Your task to perform on an android device: Go to Yahoo.com Image 0: 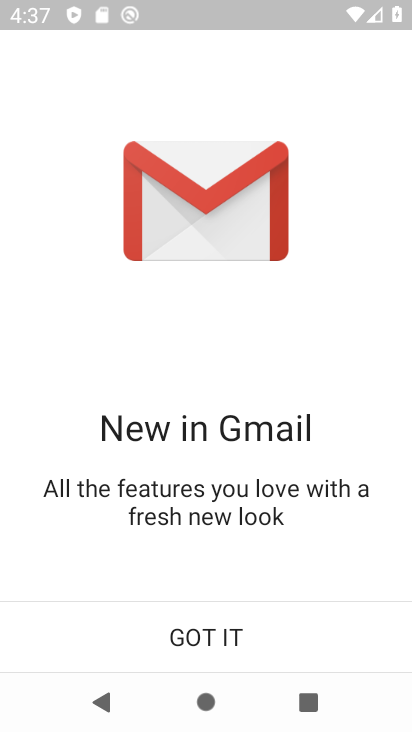
Step 0: click (214, 633)
Your task to perform on an android device: Go to Yahoo.com Image 1: 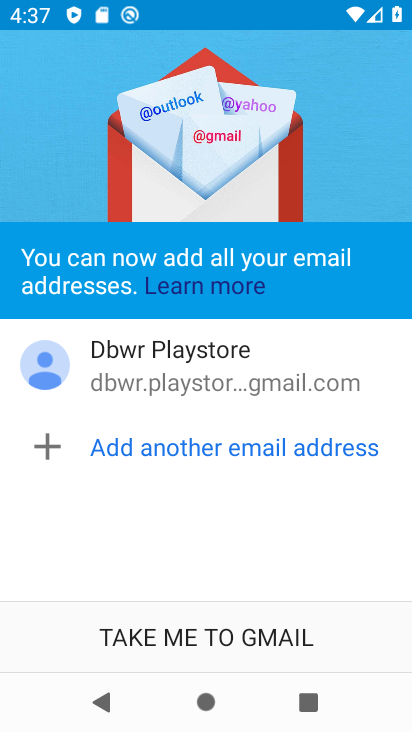
Step 1: press home button
Your task to perform on an android device: Go to Yahoo.com Image 2: 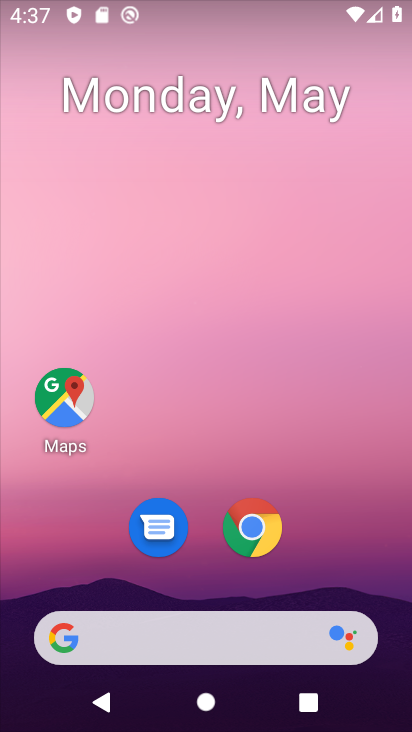
Step 2: drag from (399, 676) to (333, 201)
Your task to perform on an android device: Go to Yahoo.com Image 3: 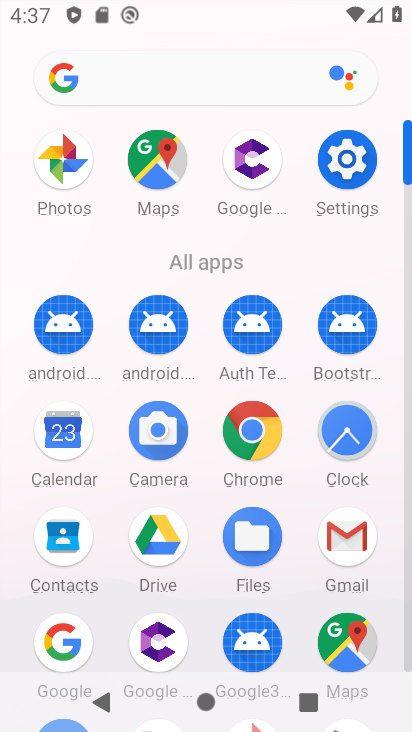
Step 3: click (258, 426)
Your task to perform on an android device: Go to Yahoo.com Image 4: 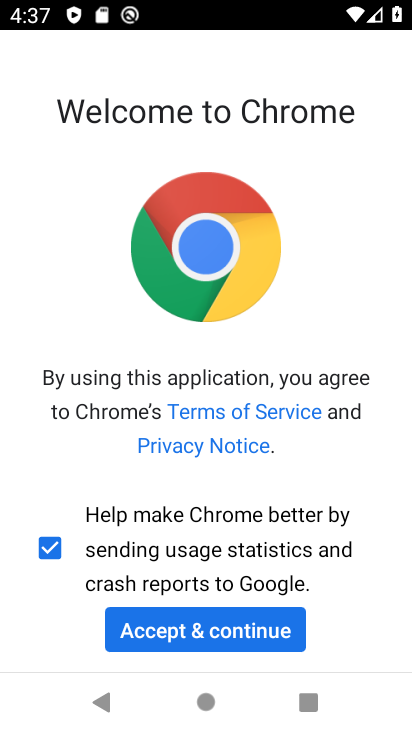
Step 4: click (251, 632)
Your task to perform on an android device: Go to Yahoo.com Image 5: 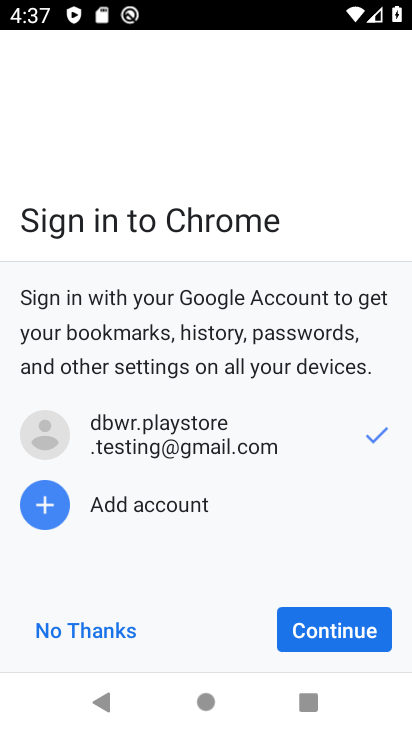
Step 5: click (326, 634)
Your task to perform on an android device: Go to Yahoo.com Image 6: 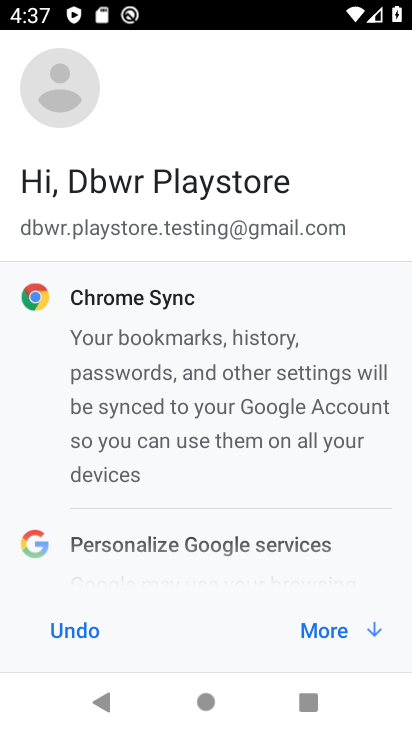
Step 6: click (327, 630)
Your task to perform on an android device: Go to Yahoo.com Image 7: 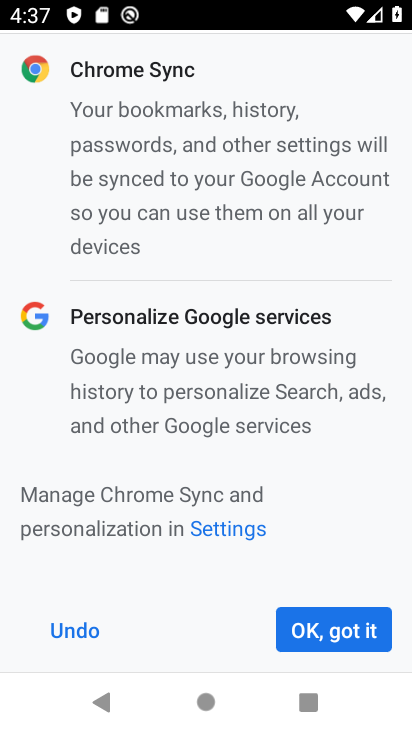
Step 7: click (327, 630)
Your task to perform on an android device: Go to Yahoo.com Image 8: 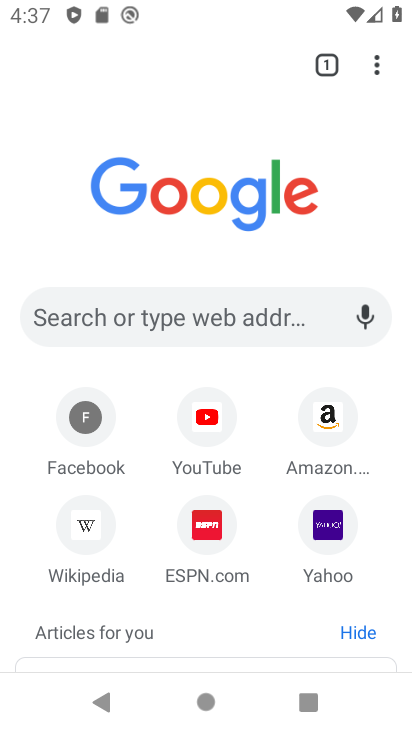
Step 8: click (345, 636)
Your task to perform on an android device: Go to Yahoo.com Image 9: 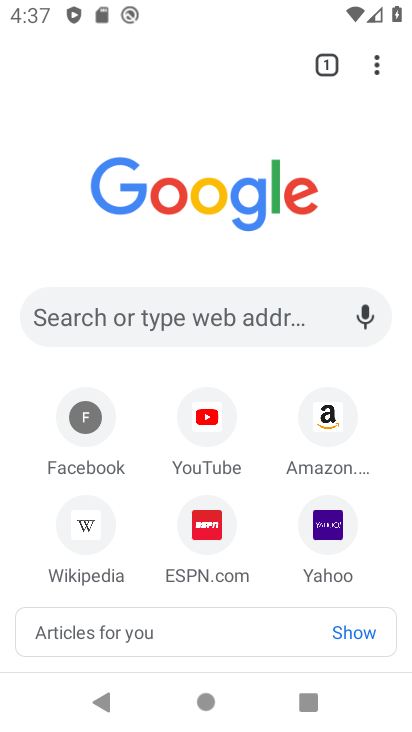
Step 9: click (249, 314)
Your task to perform on an android device: Go to Yahoo.com Image 10: 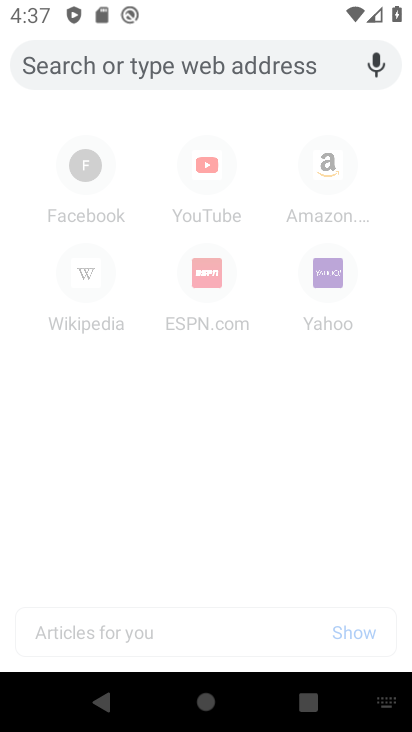
Step 10: click (214, 64)
Your task to perform on an android device: Go to Yahoo.com Image 11: 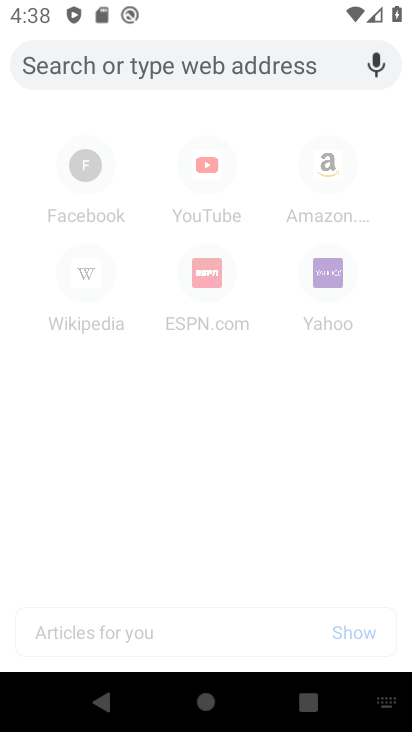
Step 11: type "Yahoo.com"
Your task to perform on an android device: Go to Yahoo.com Image 12: 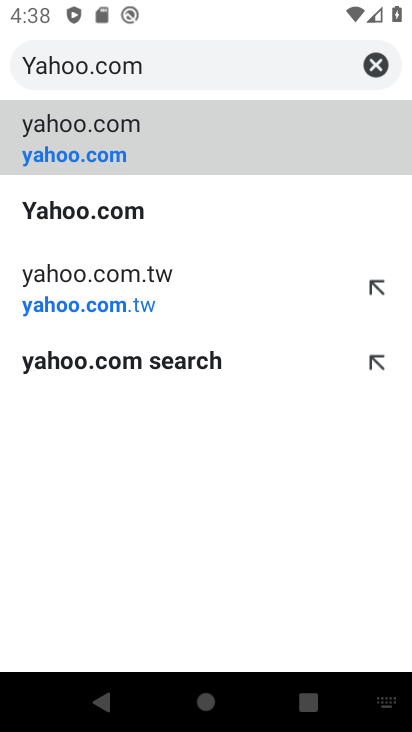
Step 12: click (70, 198)
Your task to perform on an android device: Go to Yahoo.com Image 13: 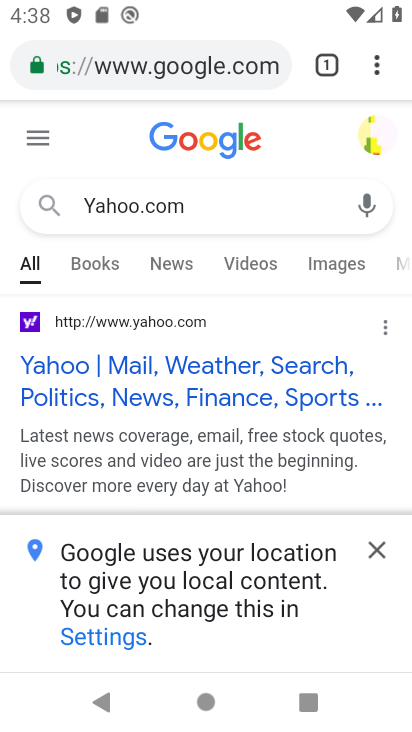
Step 13: click (381, 548)
Your task to perform on an android device: Go to Yahoo.com Image 14: 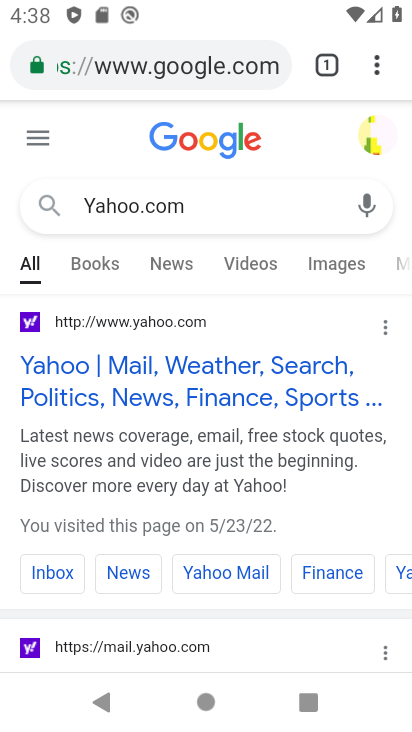
Step 14: task complete